Your task to perform on an android device: Open notification settings Image 0: 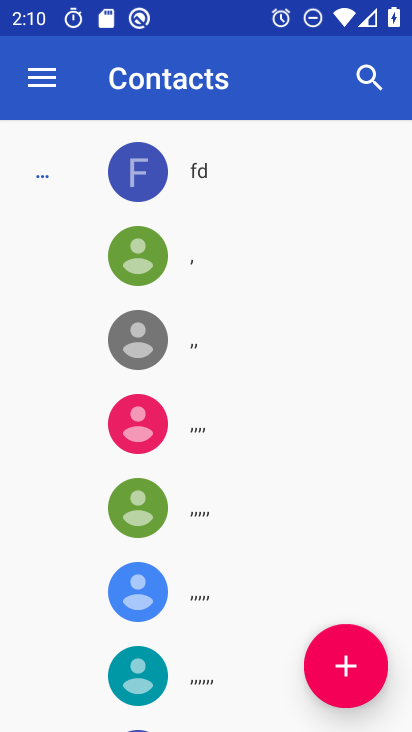
Step 0: press home button
Your task to perform on an android device: Open notification settings Image 1: 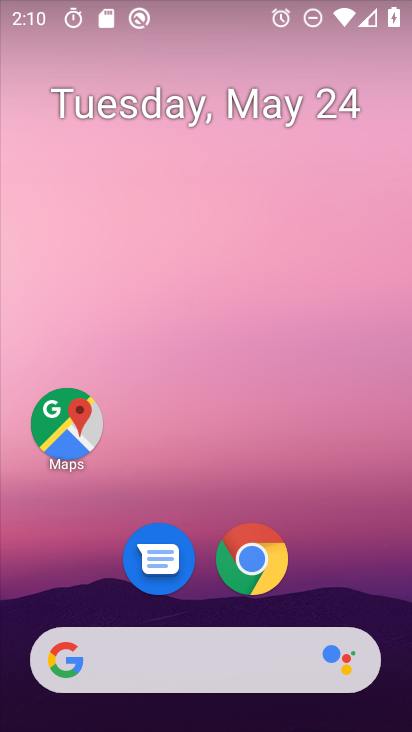
Step 1: drag from (400, 715) to (366, 203)
Your task to perform on an android device: Open notification settings Image 2: 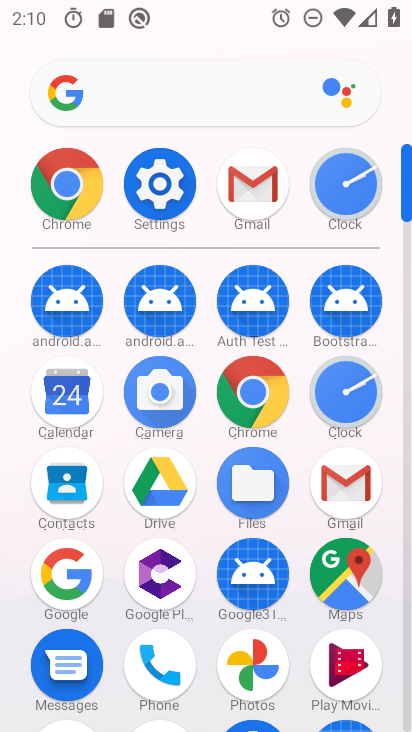
Step 2: click (166, 177)
Your task to perform on an android device: Open notification settings Image 3: 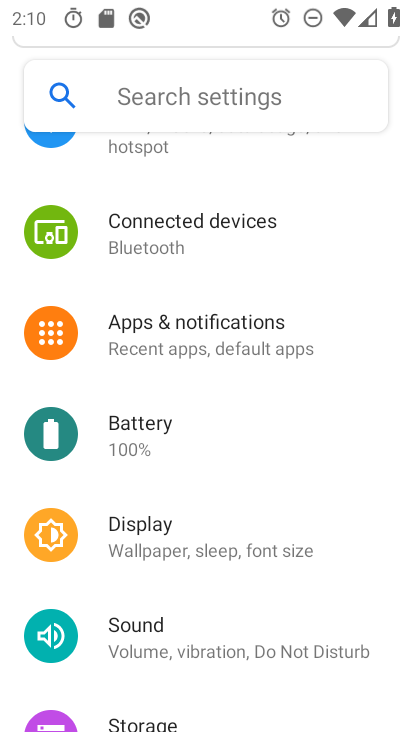
Step 3: click (206, 325)
Your task to perform on an android device: Open notification settings Image 4: 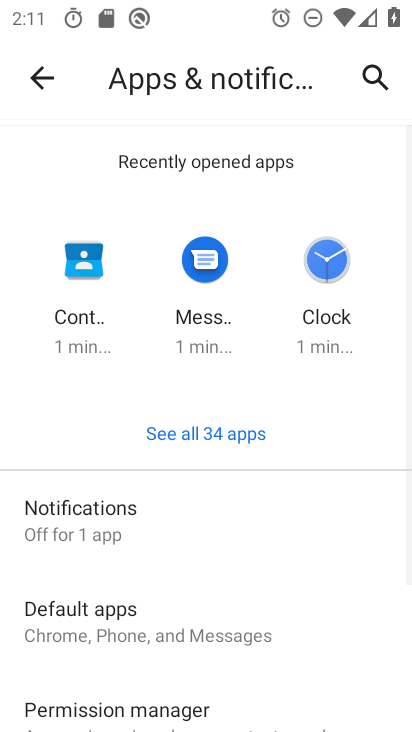
Step 4: click (65, 516)
Your task to perform on an android device: Open notification settings Image 5: 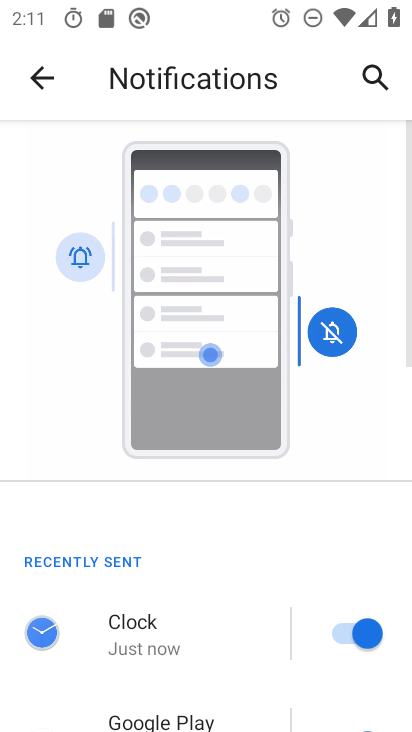
Step 5: drag from (248, 648) to (238, 292)
Your task to perform on an android device: Open notification settings Image 6: 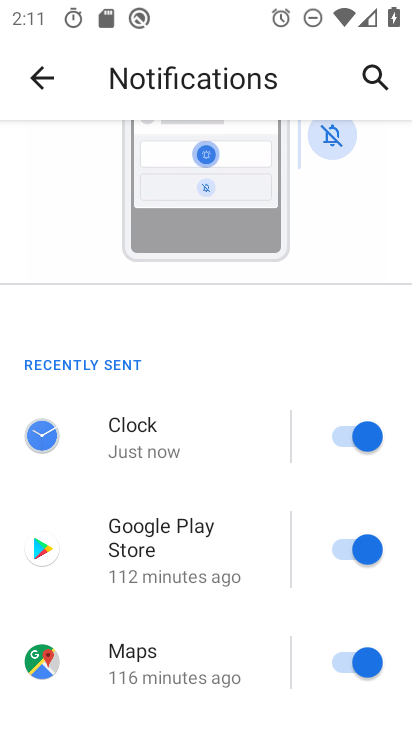
Step 6: drag from (268, 702) to (266, 309)
Your task to perform on an android device: Open notification settings Image 7: 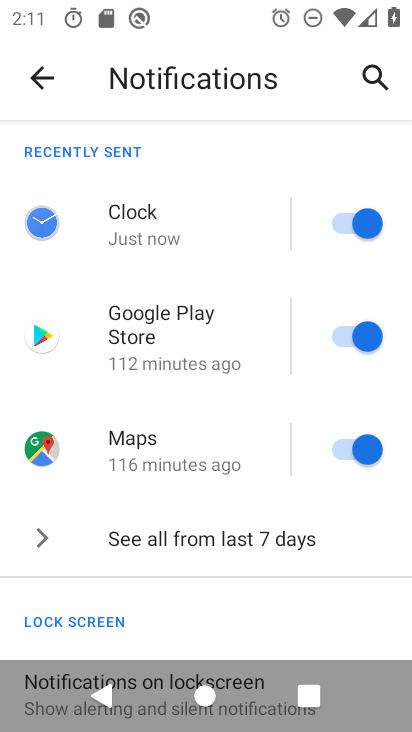
Step 7: drag from (287, 632) to (257, 320)
Your task to perform on an android device: Open notification settings Image 8: 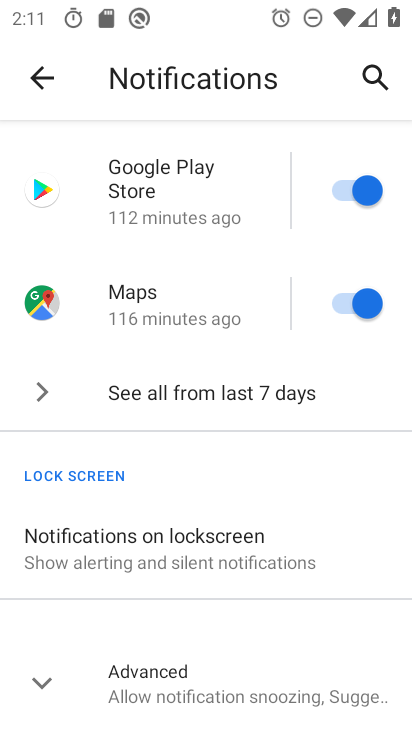
Step 8: click (33, 675)
Your task to perform on an android device: Open notification settings Image 9: 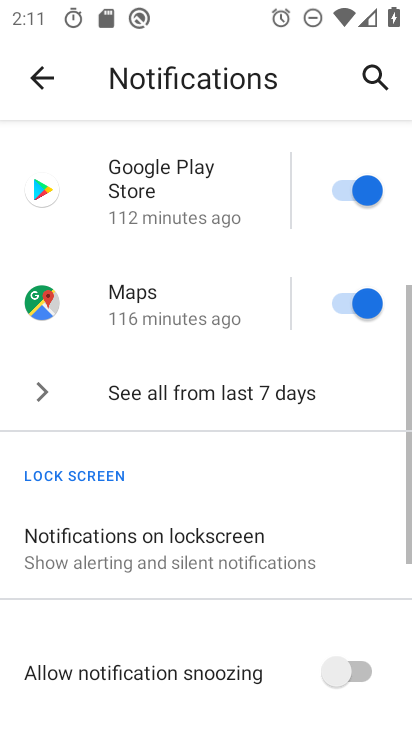
Step 9: task complete